Your task to perform on an android device: see creations saved in the google photos Image 0: 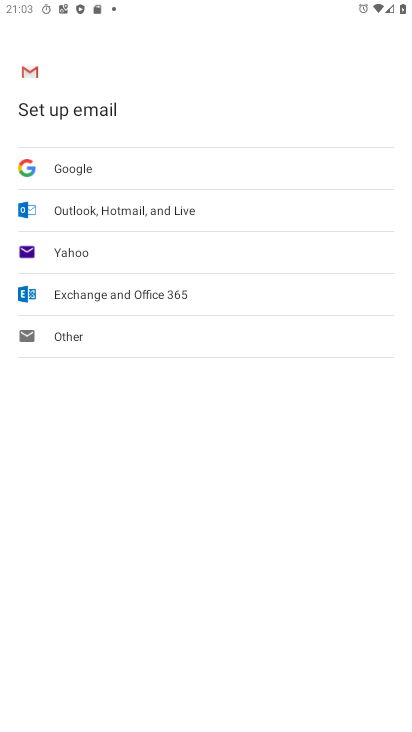
Step 0: press home button
Your task to perform on an android device: see creations saved in the google photos Image 1: 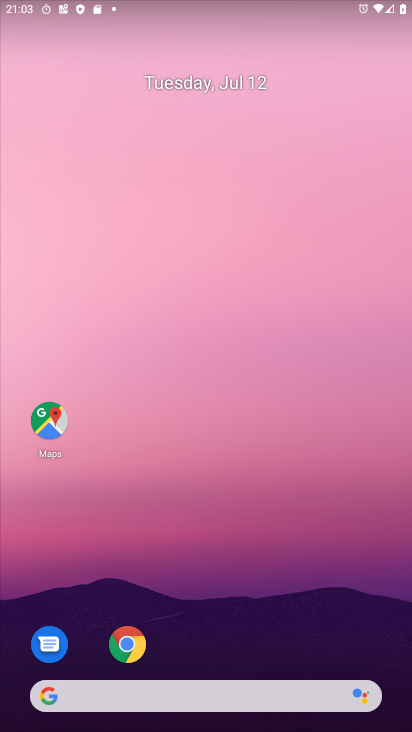
Step 1: drag from (46, 701) to (220, 155)
Your task to perform on an android device: see creations saved in the google photos Image 2: 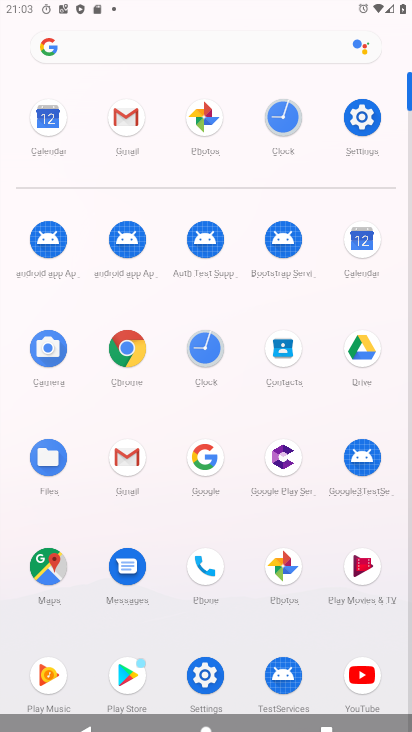
Step 2: click (292, 574)
Your task to perform on an android device: see creations saved in the google photos Image 3: 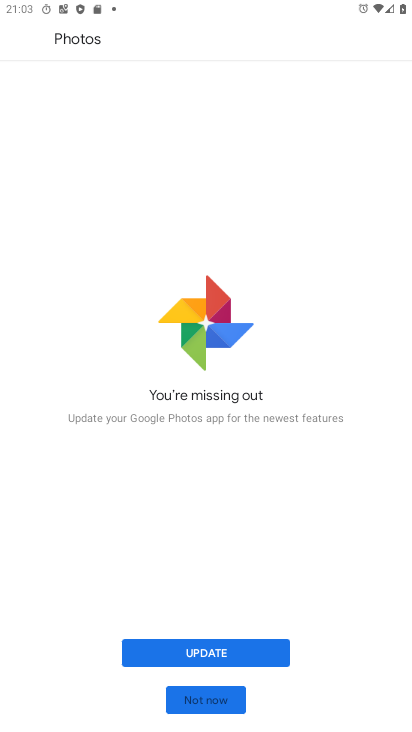
Step 3: click (208, 689)
Your task to perform on an android device: see creations saved in the google photos Image 4: 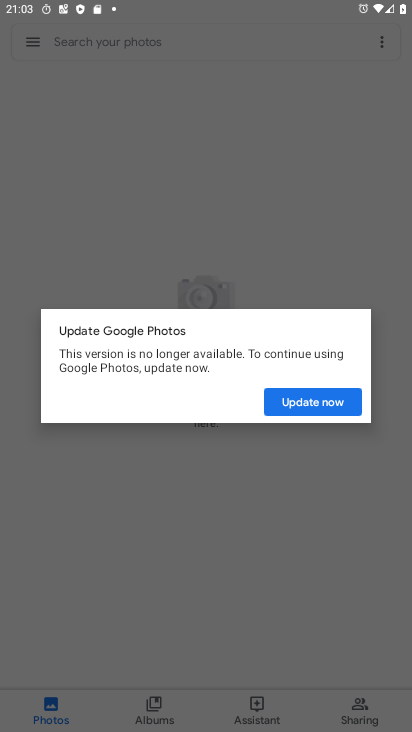
Step 4: click (335, 401)
Your task to perform on an android device: see creations saved in the google photos Image 5: 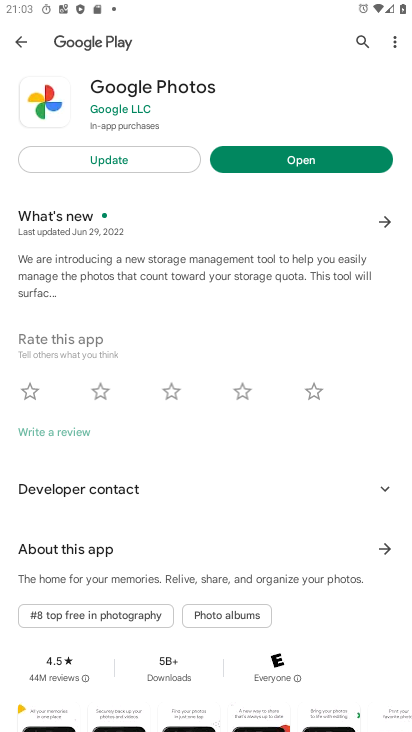
Step 5: click (240, 149)
Your task to perform on an android device: see creations saved in the google photos Image 6: 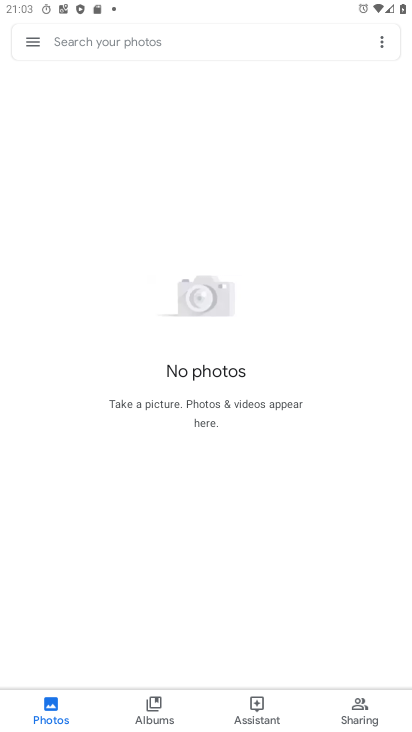
Step 6: click (34, 44)
Your task to perform on an android device: see creations saved in the google photos Image 7: 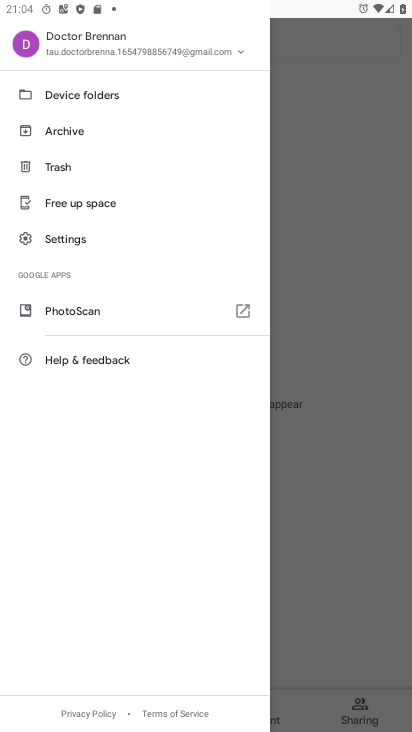
Step 7: click (323, 259)
Your task to perform on an android device: see creations saved in the google photos Image 8: 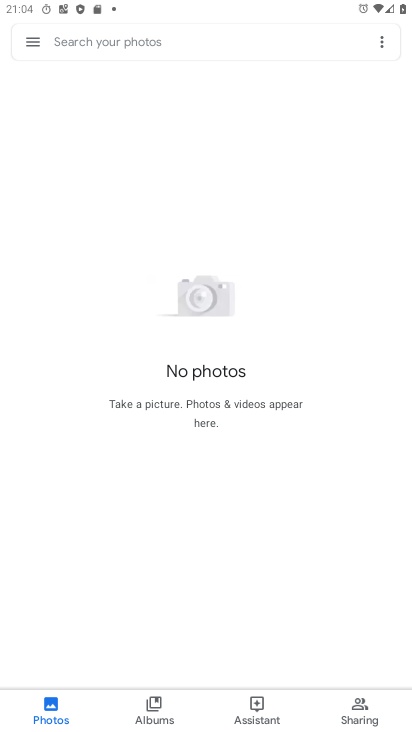
Step 8: click (377, 36)
Your task to perform on an android device: see creations saved in the google photos Image 9: 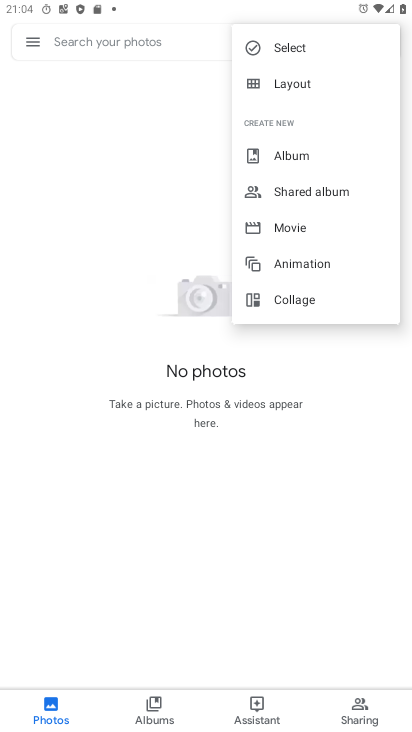
Step 9: click (326, 521)
Your task to perform on an android device: see creations saved in the google photos Image 10: 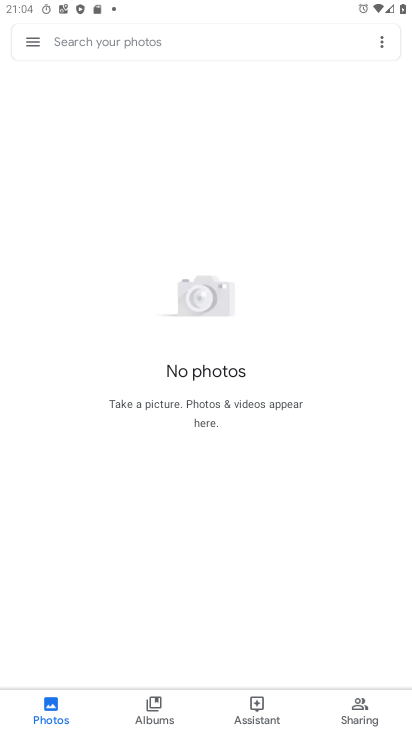
Step 10: task complete